Your task to perform on an android device: make emails show in primary in the gmail app Image 0: 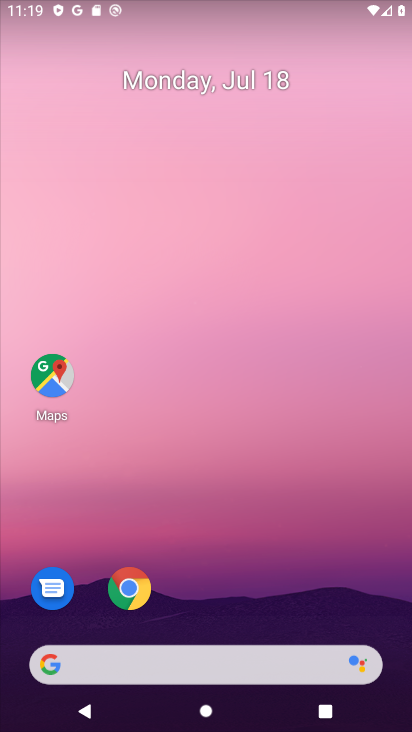
Step 0: drag from (335, 634) to (293, 211)
Your task to perform on an android device: make emails show in primary in the gmail app Image 1: 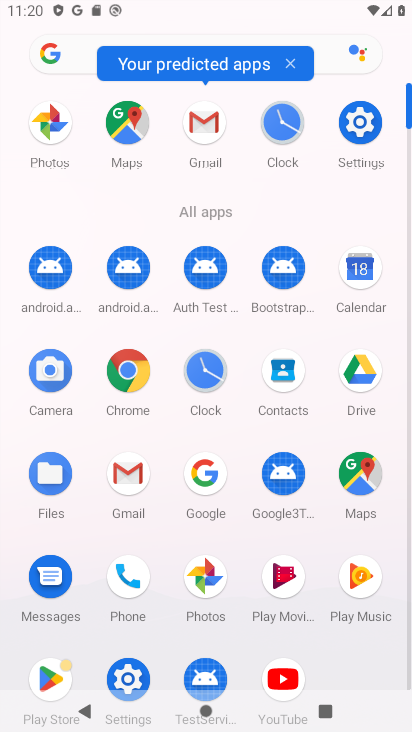
Step 1: click (201, 129)
Your task to perform on an android device: make emails show in primary in the gmail app Image 2: 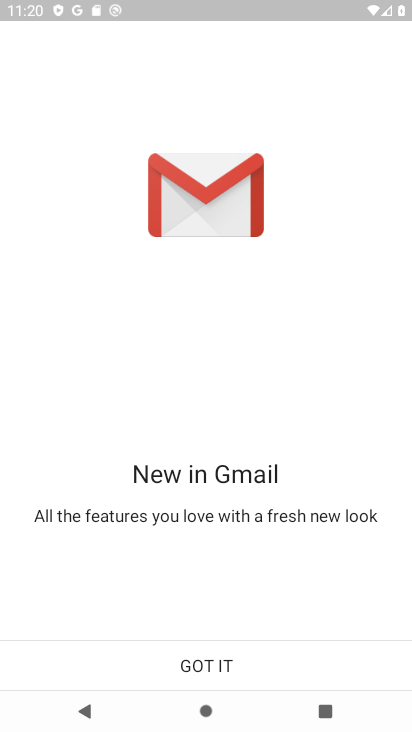
Step 2: click (238, 657)
Your task to perform on an android device: make emails show in primary in the gmail app Image 3: 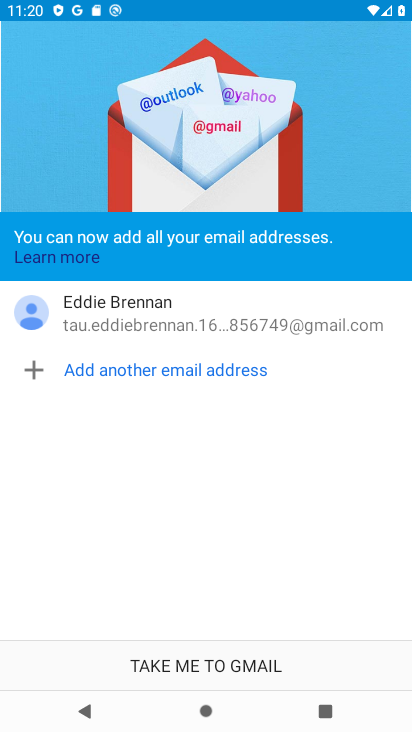
Step 3: click (249, 667)
Your task to perform on an android device: make emails show in primary in the gmail app Image 4: 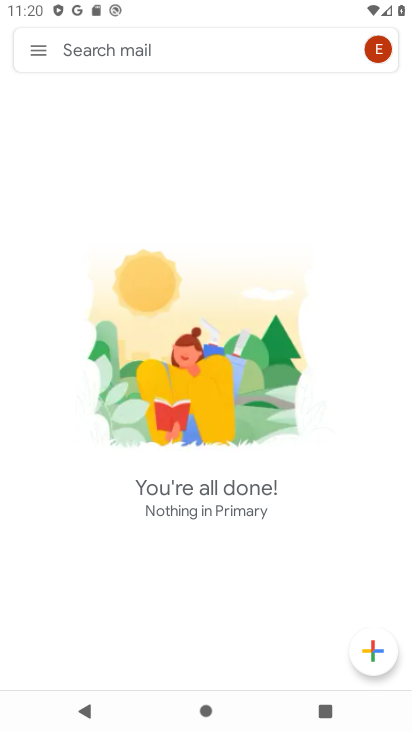
Step 4: click (48, 46)
Your task to perform on an android device: make emails show in primary in the gmail app Image 5: 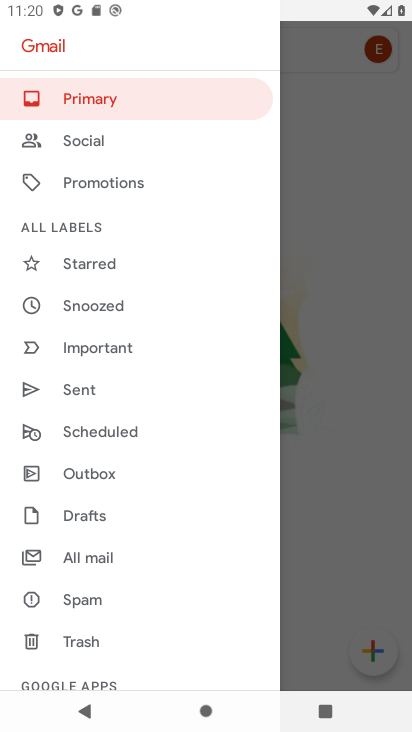
Step 5: drag from (105, 635) to (115, 272)
Your task to perform on an android device: make emails show in primary in the gmail app Image 6: 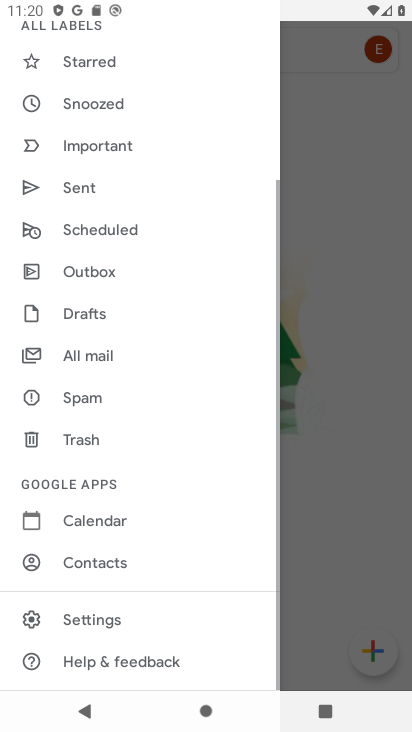
Step 6: click (136, 623)
Your task to perform on an android device: make emails show in primary in the gmail app Image 7: 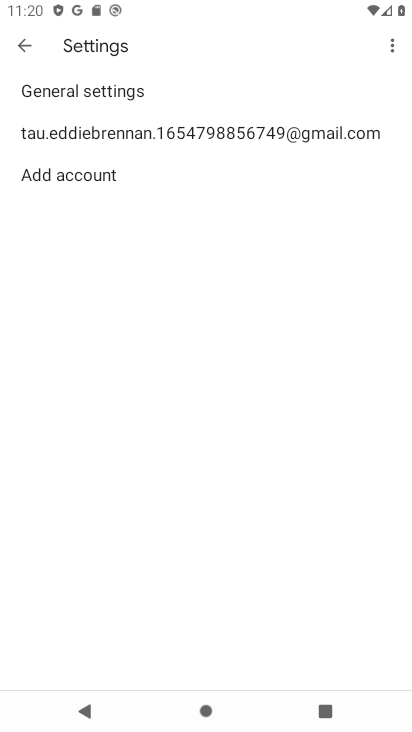
Step 7: click (244, 130)
Your task to perform on an android device: make emails show in primary in the gmail app Image 8: 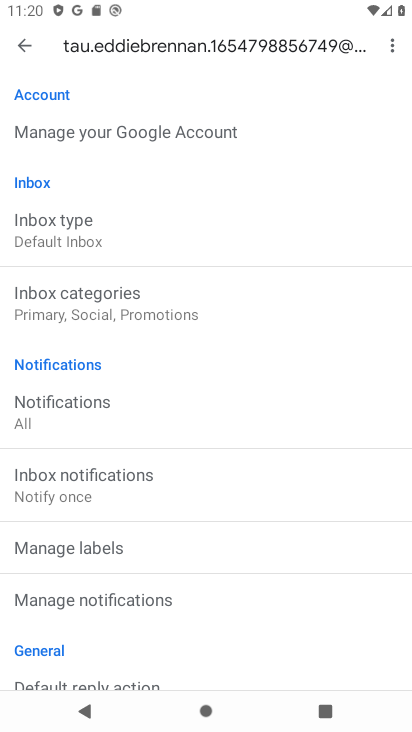
Step 8: click (163, 236)
Your task to perform on an android device: make emails show in primary in the gmail app Image 9: 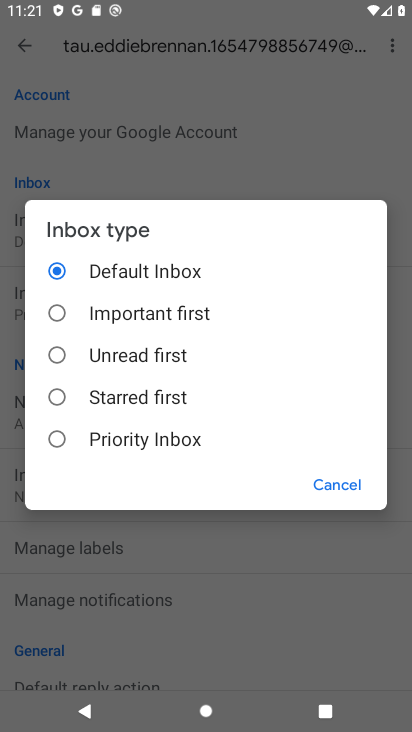
Step 9: task complete